Your task to perform on an android device: Open the stopwatch Image 0: 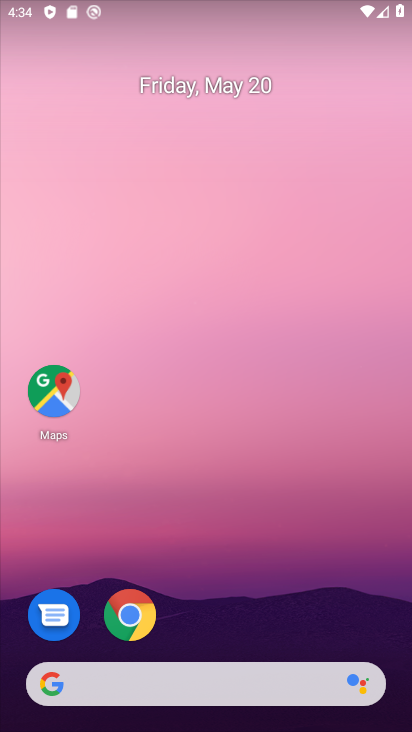
Step 0: drag from (241, 660) to (250, 24)
Your task to perform on an android device: Open the stopwatch Image 1: 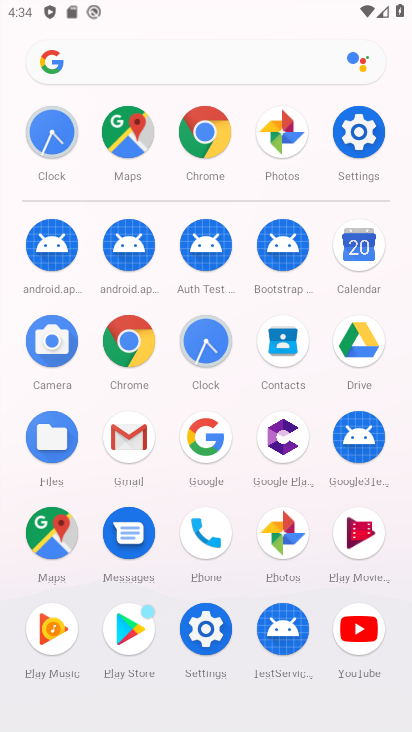
Step 1: click (213, 345)
Your task to perform on an android device: Open the stopwatch Image 2: 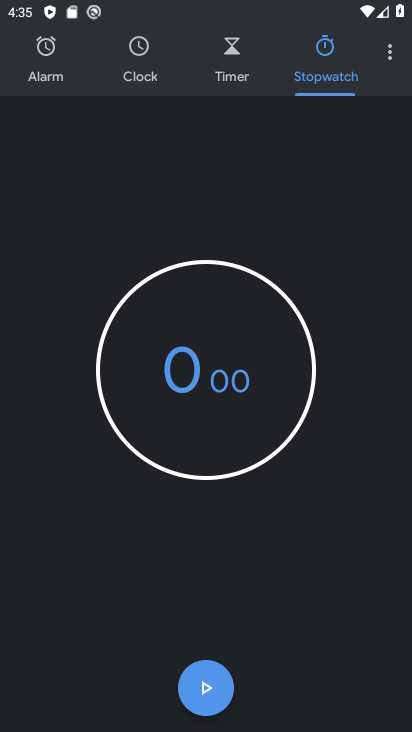
Step 2: task complete